Your task to perform on an android device: Clear the cart on amazon.com. Search for logitech g502 on amazon.com, select the first entry, add it to the cart, then select checkout. Image 0: 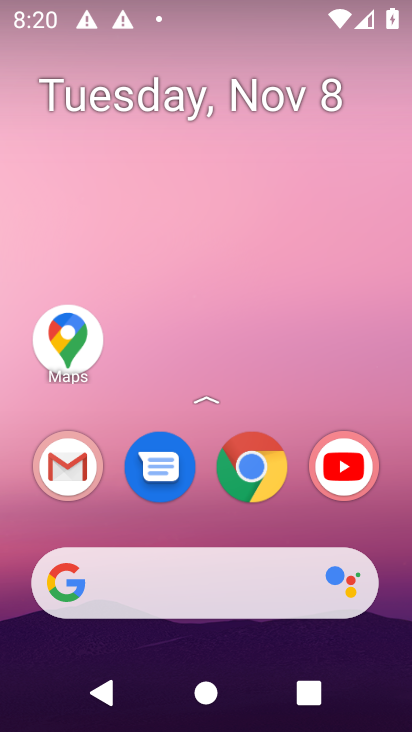
Step 0: click (175, 595)
Your task to perform on an android device: Clear the cart on amazon.com. Search for logitech g502 on amazon.com, select the first entry, add it to the cart, then select checkout. Image 1: 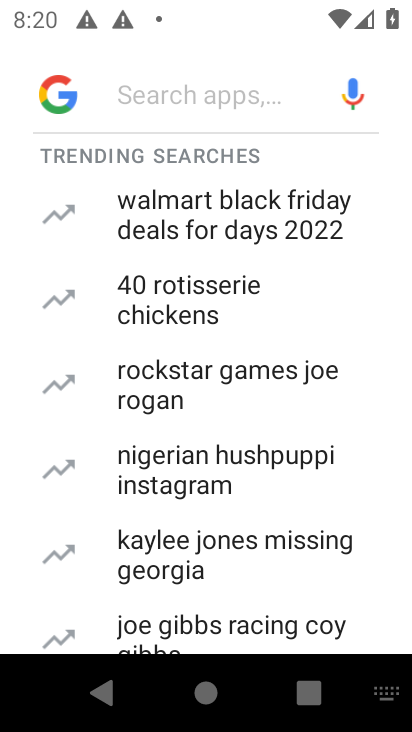
Step 1: type "amazone"
Your task to perform on an android device: Clear the cart on amazon.com. Search for logitech g502 on amazon.com, select the first entry, add it to the cart, then select checkout. Image 2: 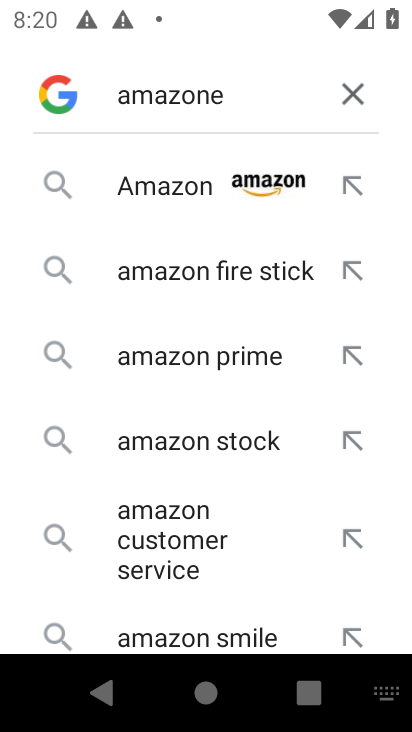
Step 2: click (202, 200)
Your task to perform on an android device: Clear the cart on amazon.com. Search for logitech g502 on amazon.com, select the first entry, add it to the cart, then select checkout. Image 3: 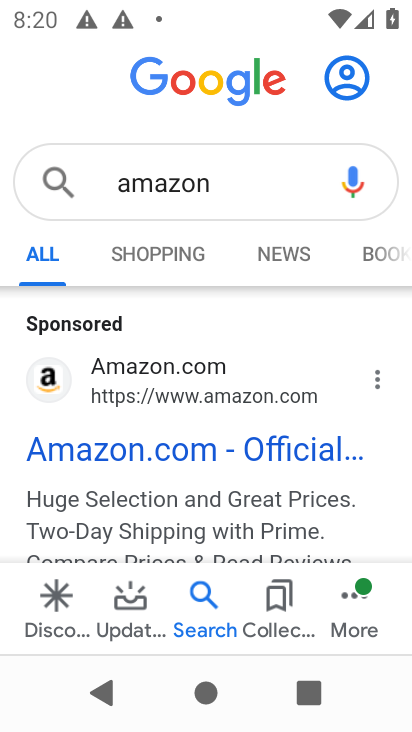
Step 3: click (143, 405)
Your task to perform on an android device: Clear the cart on amazon.com. Search for logitech g502 on amazon.com, select the first entry, add it to the cart, then select checkout. Image 4: 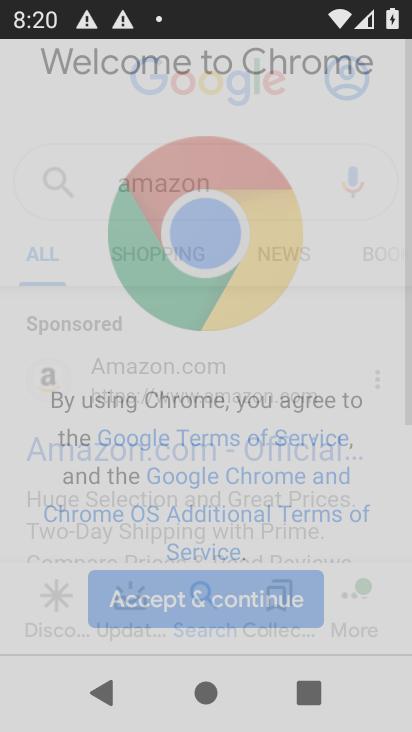
Step 4: click (131, 453)
Your task to perform on an android device: Clear the cart on amazon.com. Search for logitech g502 on amazon.com, select the first entry, add it to the cart, then select checkout. Image 5: 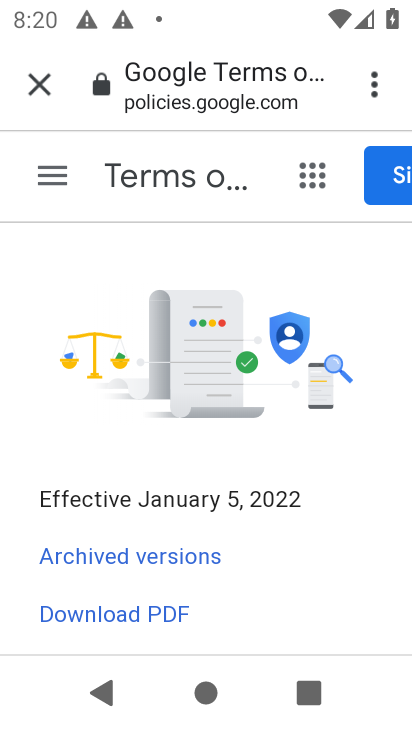
Step 5: task complete